Your task to perform on an android device: Search for vegetarian restaurants on Maps Image 0: 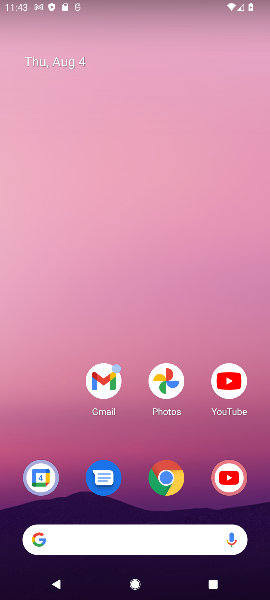
Step 0: drag from (160, 433) to (111, 114)
Your task to perform on an android device: Search for vegetarian restaurants on Maps Image 1: 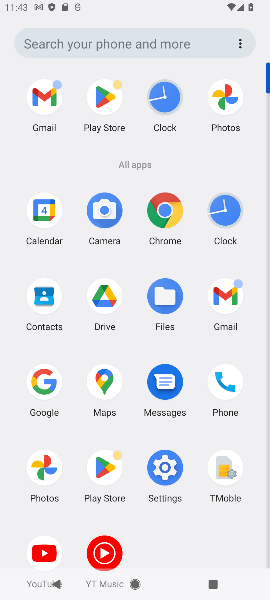
Step 1: click (93, 386)
Your task to perform on an android device: Search for vegetarian restaurants on Maps Image 2: 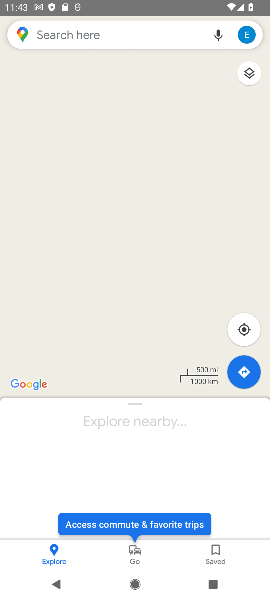
Step 2: click (71, 35)
Your task to perform on an android device: Search for vegetarian restaurants on Maps Image 3: 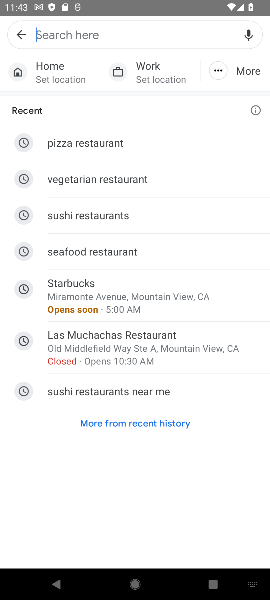
Step 3: type "vegetarian restaurants"
Your task to perform on an android device: Search for vegetarian restaurants on Maps Image 4: 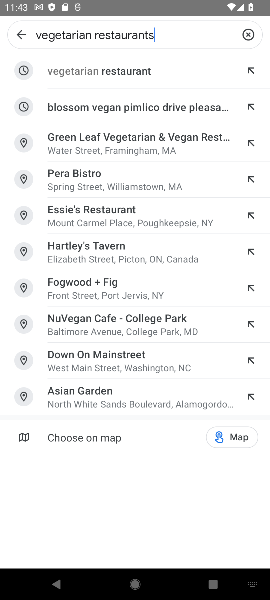
Step 4: click (131, 71)
Your task to perform on an android device: Search for vegetarian restaurants on Maps Image 5: 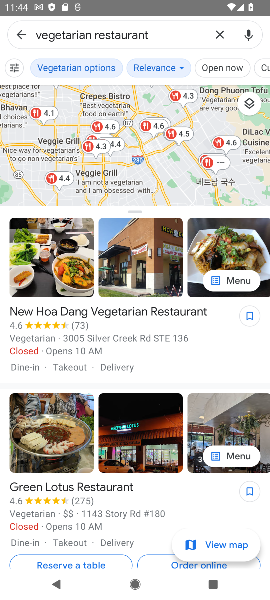
Step 5: task complete